Your task to perform on an android device: Go to network settings Image 0: 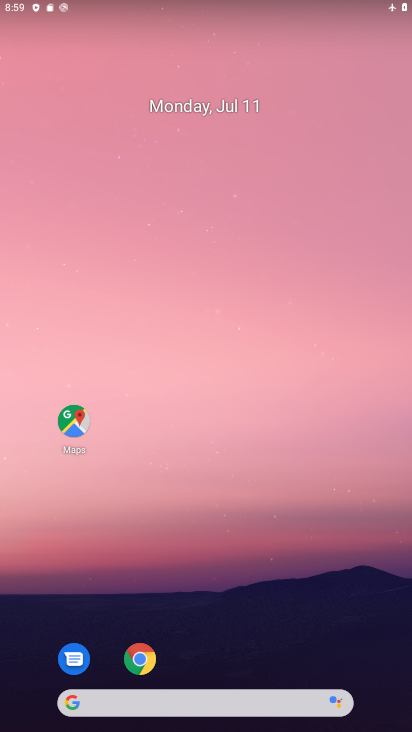
Step 0: drag from (222, 659) to (256, 189)
Your task to perform on an android device: Go to network settings Image 1: 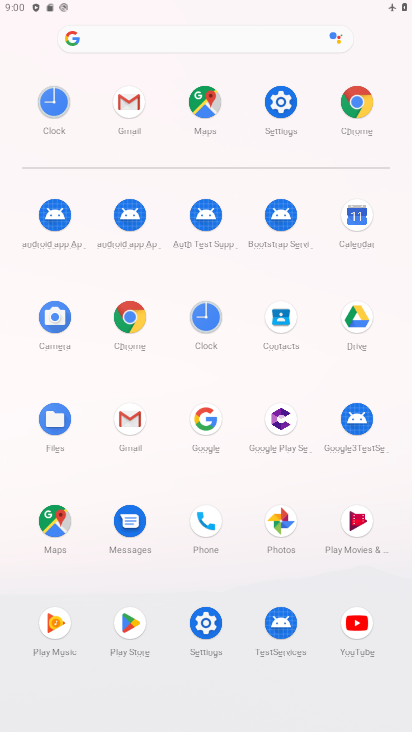
Step 1: click (285, 112)
Your task to perform on an android device: Go to network settings Image 2: 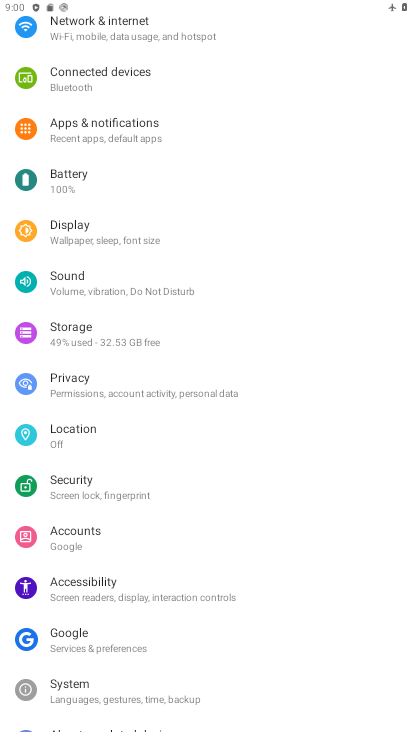
Step 2: click (163, 32)
Your task to perform on an android device: Go to network settings Image 3: 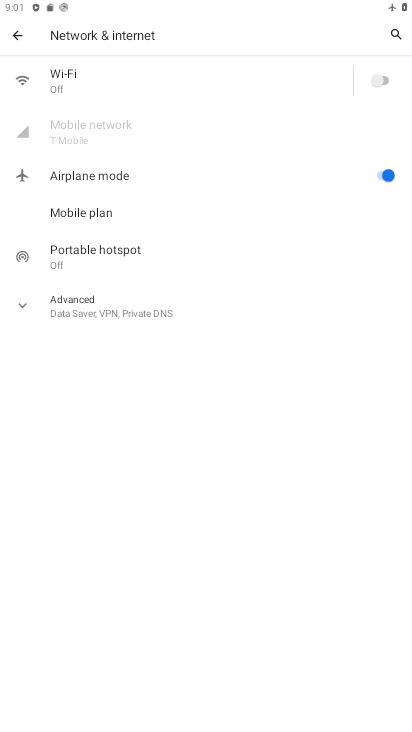
Step 3: task complete